Your task to perform on an android device: toggle data saver in the chrome app Image 0: 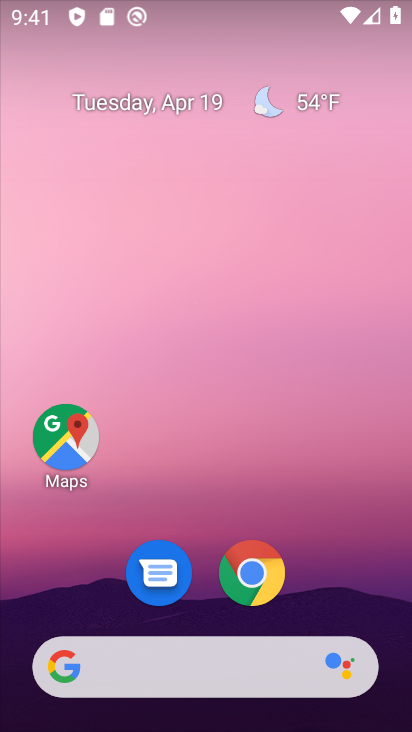
Step 0: click (252, 580)
Your task to perform on an android device: toggle data saver in the chrome app Image 1: 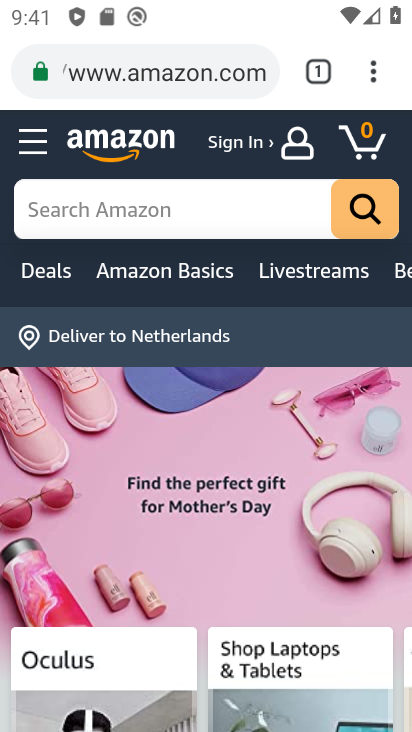
Step 1: click (376, 73)
Your task to perform on an android device: toggle data saver in the chrome app Image 2: 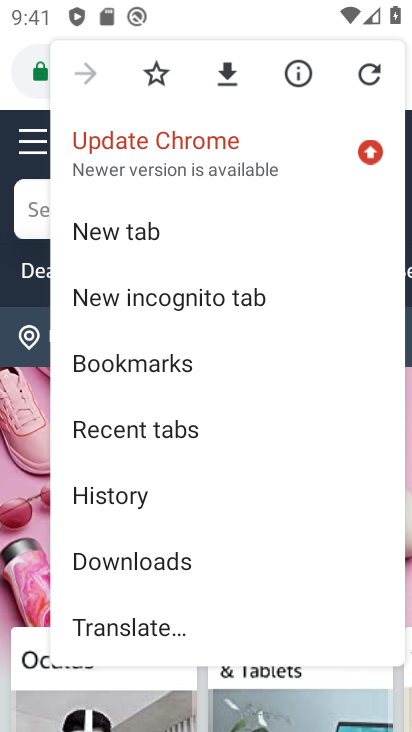
Step 2: drag from (234, 566) to (227, 134)
Your task to perform on an android device: toggle data saver in the chrome app Image 3: 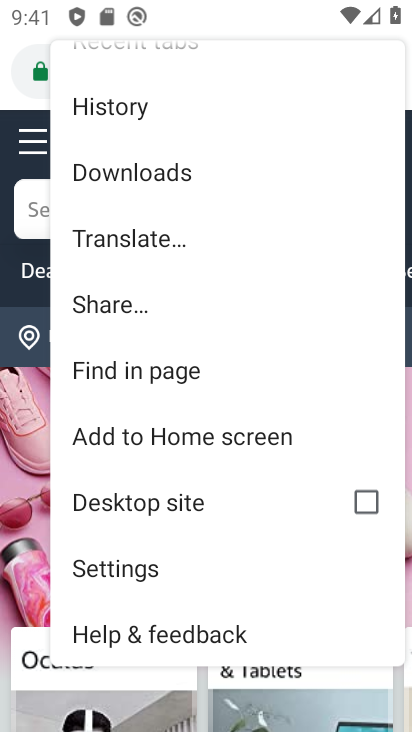
Step 3: drag from (214, 546) to (215, 190)
Your task to perform on an android device: toggle data saver in the chrome app Image 4: 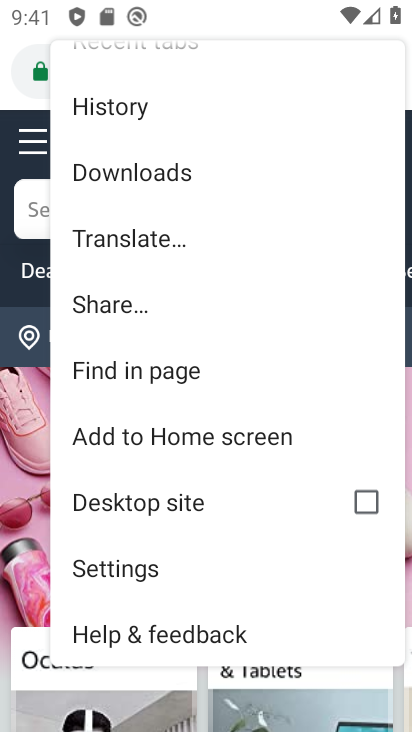
Step 4: click (133, 573)
Your task to perform on an android device: toggle data saver in the chrome app Image 5: 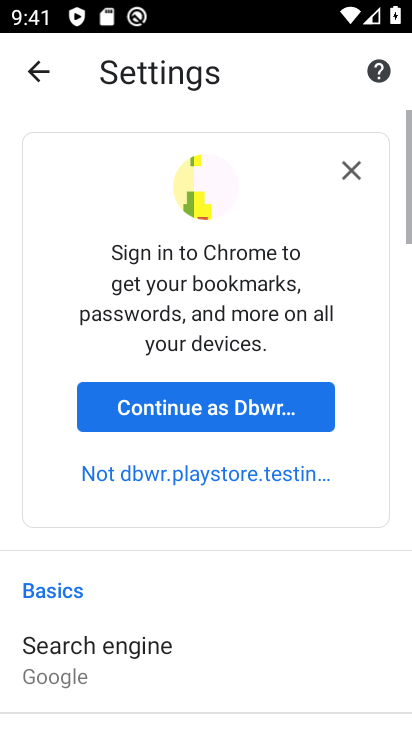
Step 5: drag from (267, 592) to (269, 157)
Your task to perform on an android device: toggle data saver in the chrome app Image 6: 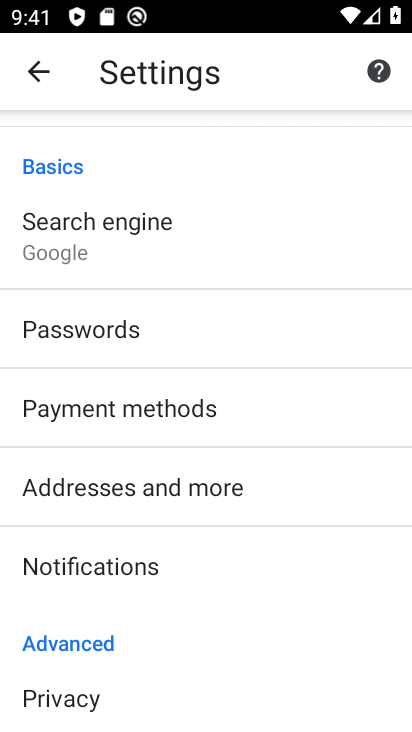
Step 6: drag from (208, 601) to (198, 141)
Your task to perform on an android device: toggle data saver in the chrome app Image 7: 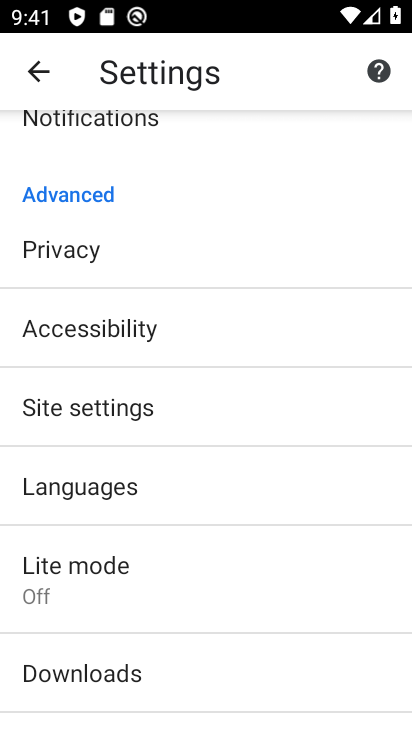
Step 7: click (60, 562)
Your task to perform on an android device: toggle data saver in the chrome app Image 8: 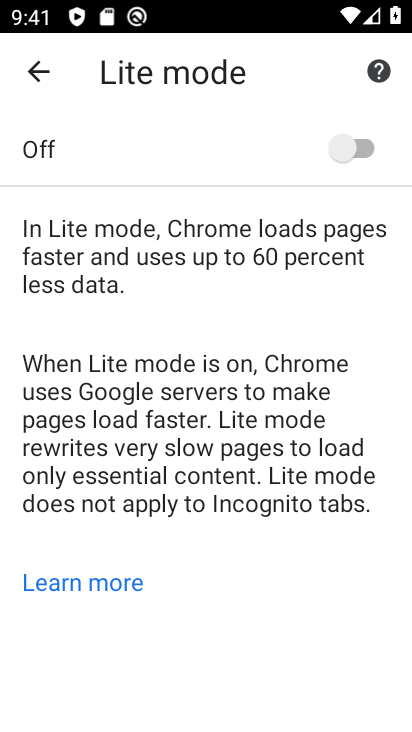
Step 8: click (350, 150)
Your task to perform on an android device: toggle data saver in the chrome app Image 9: 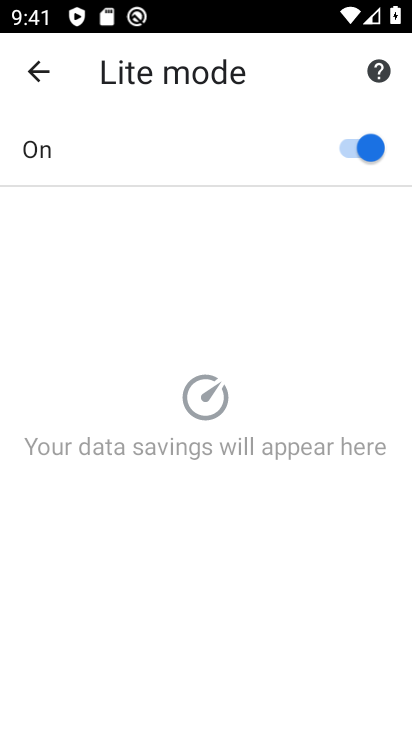
Step 9: task complete